Your task to perform on an android device: toggle pop-ups in chrome Image 0: 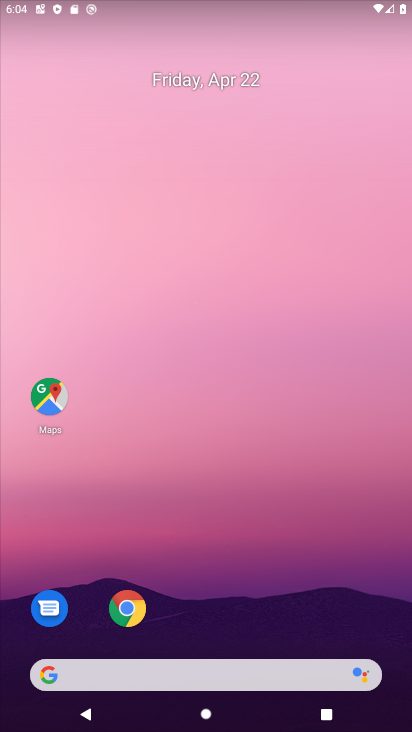
Step 0: drag from (292, 443) to (209, 145)
Your task to perform on an android device: toggle pop-ups in chrome Image 1: 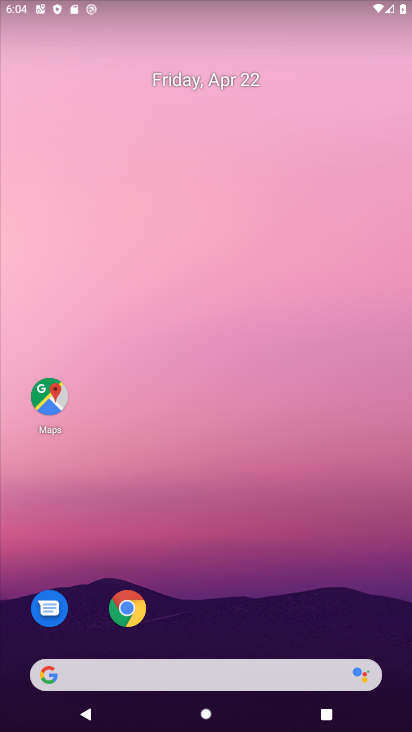
Step 1: click (139, 608)
Your task to perform on an android device: toggle pop-ups in chrome Image 2: 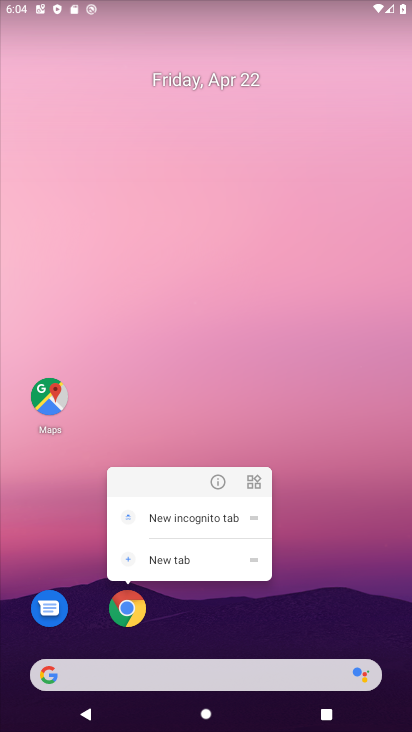
Step 2: click (127, 616)
Your task to perform on an android device: toggle pop-ups in chrome Image 3: 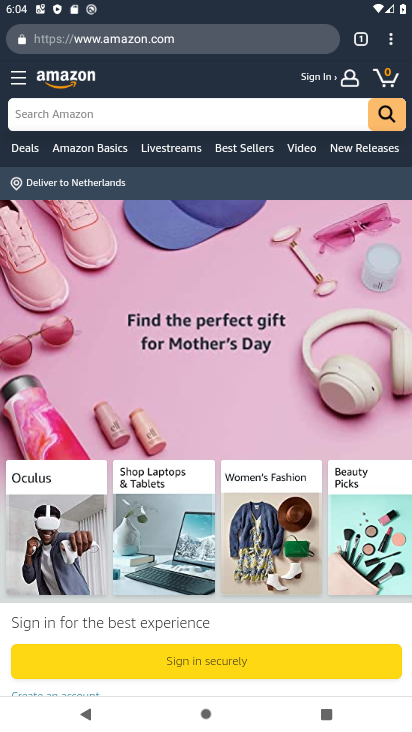
Step 3: click (389, 40)
Your task to perform on an android device: toggle pop-ups in chrome Image 4: 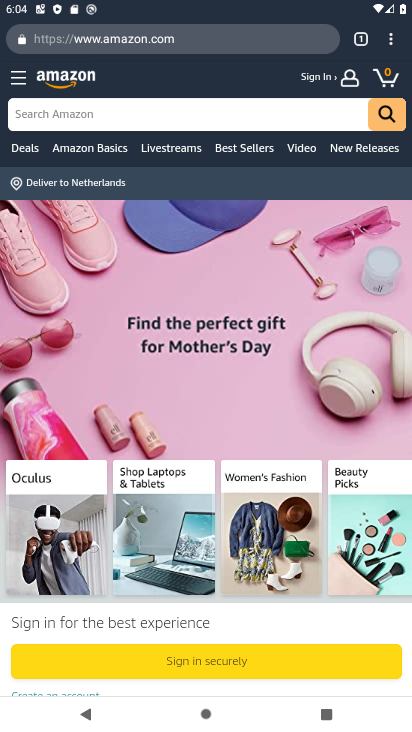
Step 4: click (394, 39)
Your task to perform on an android device: toggle pop-ups in chrome Image 5: 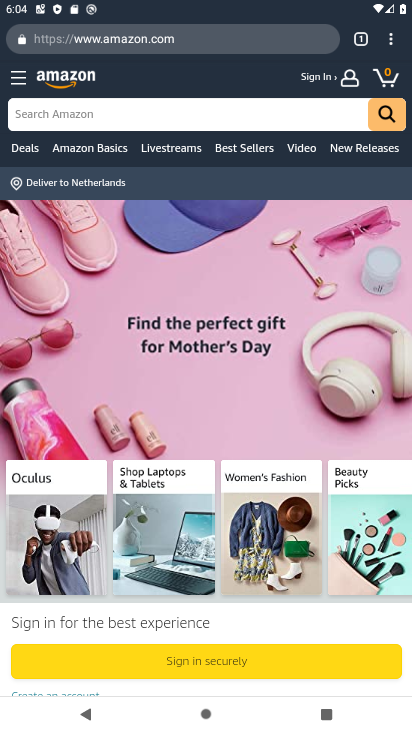
Step 5: click (394, 38)
Your task to perform on an android device: toggle pop-ups in chrome Image 6: 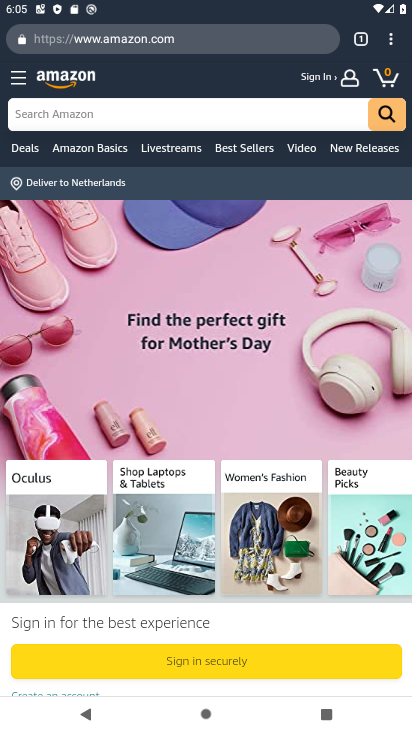
Step 6: click (393, 47)
Your task to perform on an android device: toggle pop-ups in chrome Image 7: 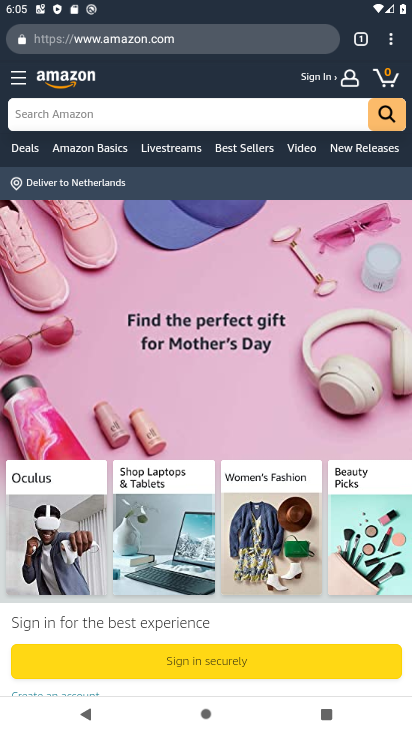
Step 7: click (394, 39)
Your task to perform on an android device: toggle pop-ups in chrome Image 8: 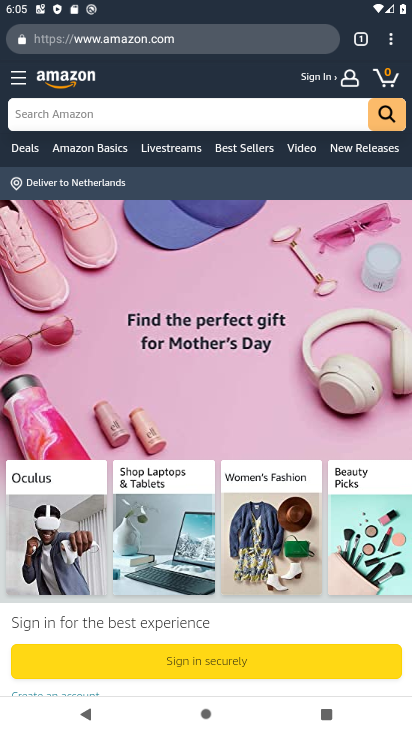
Step 8: click (392, 44)
Your task to perform on an android device: toggle pop-ups in chrome Image 9: 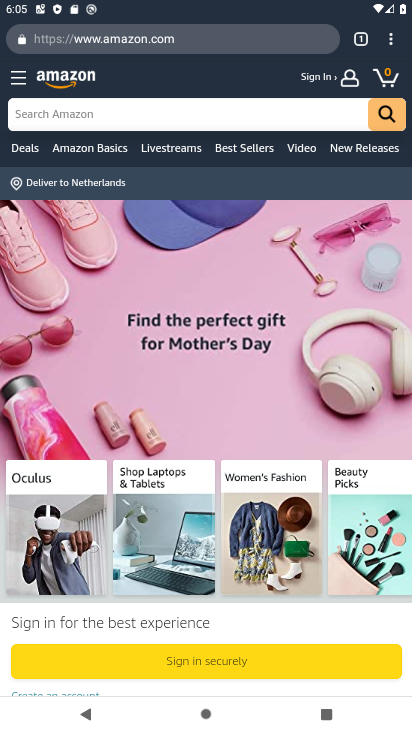
Step 9: click (390, 43)
Your task to perform on an android device: toggle pop-ups in chrome Image 10: 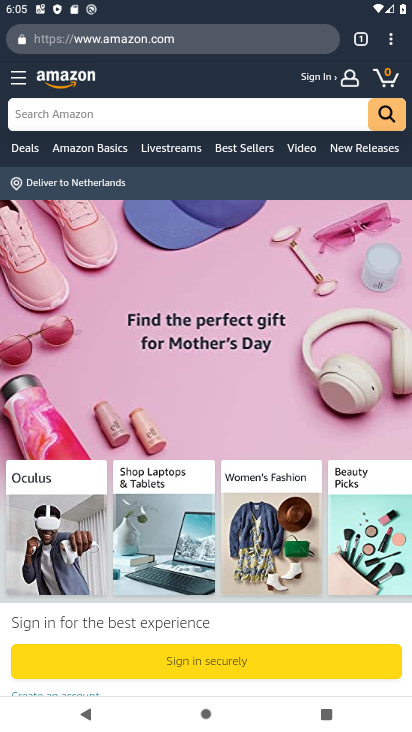
Step 10: click (391, 43)
Your task to perform on an android device: toggle pop-ups in chrome Image 11: 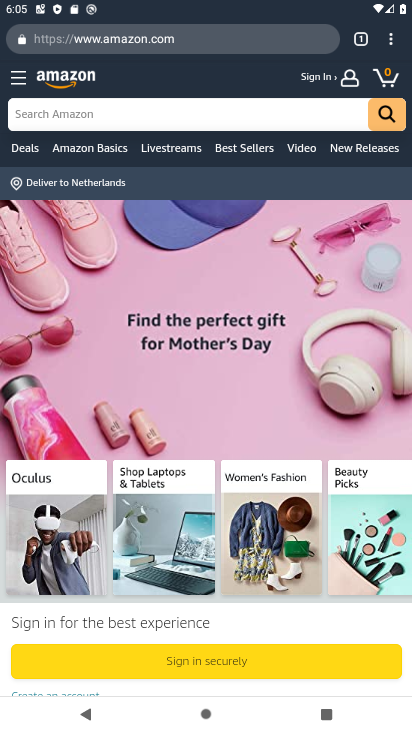
Step 11: click (392, 48)
Your task to perform on an android device: toggle pop-ups in chrome Image 12: 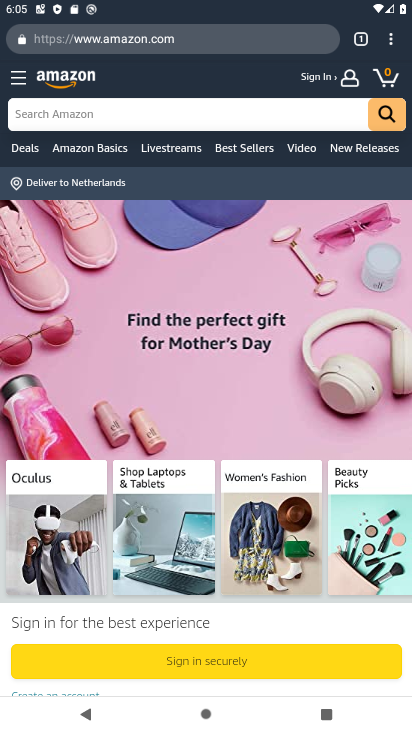
Step 12: click (391, 48)
Your task to perform on an android device: toggle pop-ups in chrome Image 13: 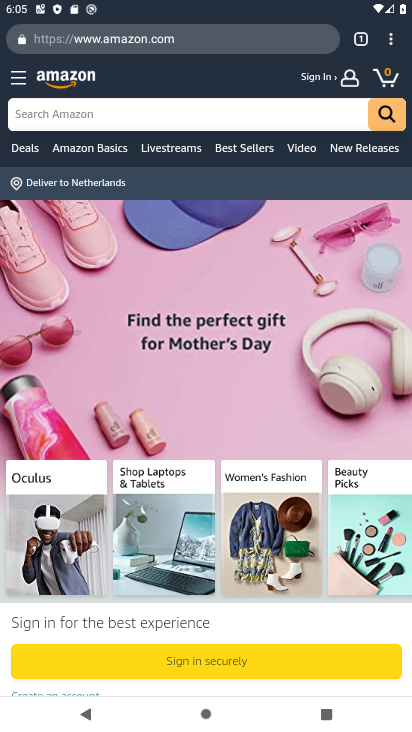
Step 13: click (394, 46)
Your task to perform on an android device: toggle pop-ups in chrome Image 14: 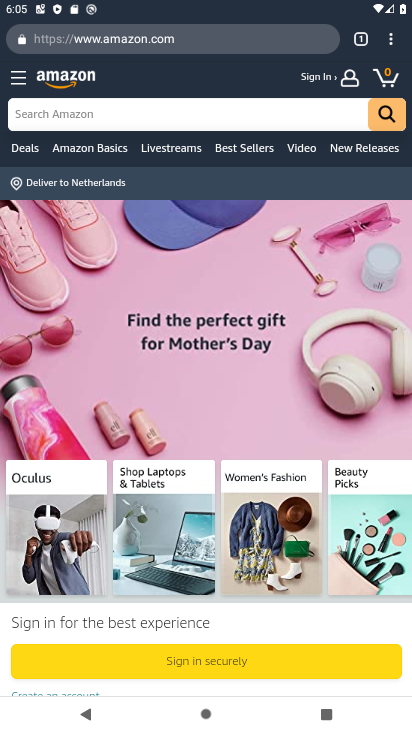
Step 14: click (391, 42)
Your task to perform on an android device: toggle pop-ups in chrome Image 15: 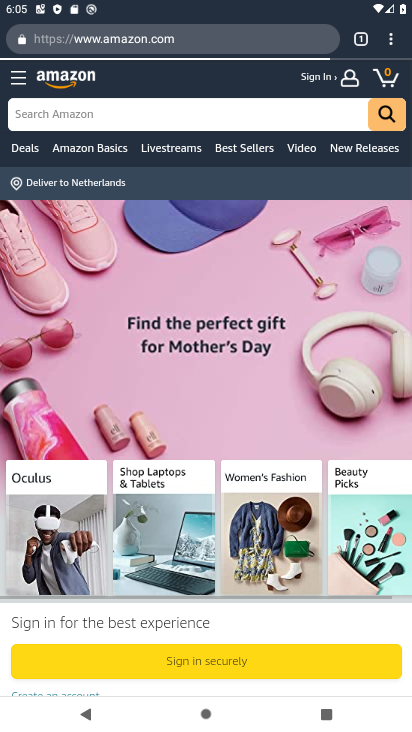
Step 15: click (393, 47)
Your task to perform on an android device: toggle pop-ups in chrome Image 16: 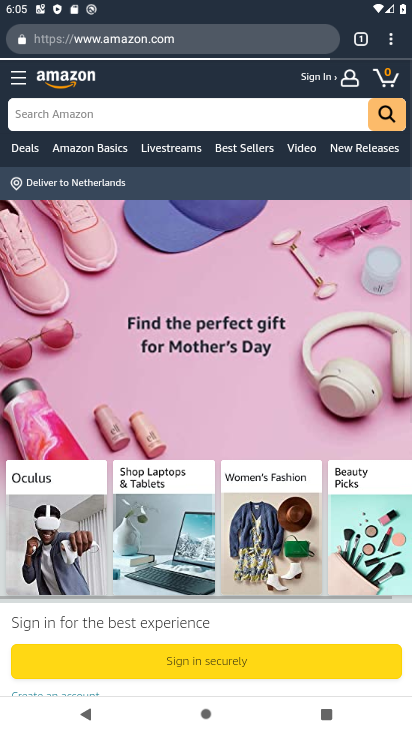
Step 16: click (388, 43)
Your task to perform on an android device: toggle pop-ups in chrome Image 17: 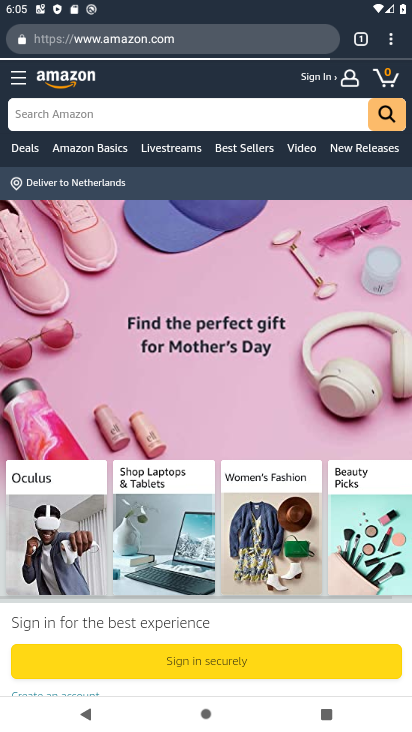
Step 17: click (392, 39)
Your task to perform on an android device: toggle pop-ups in chrome Image 18: 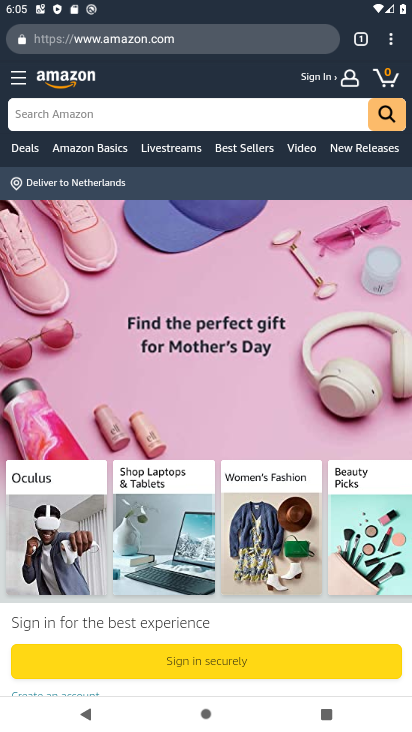
Step 18: click (393, 39)
Your task to perform on an android device: toggle pop-ups in chrome Image 19: 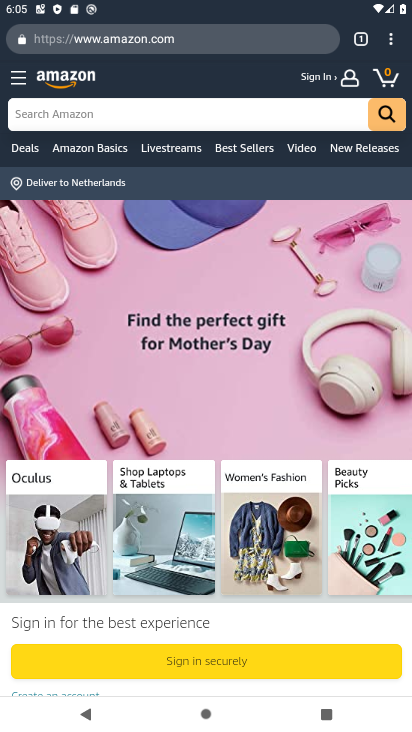
Step 19: click (391, 41)
Your task to perform on an android device: toggle pop-ups in chrome Image 20: 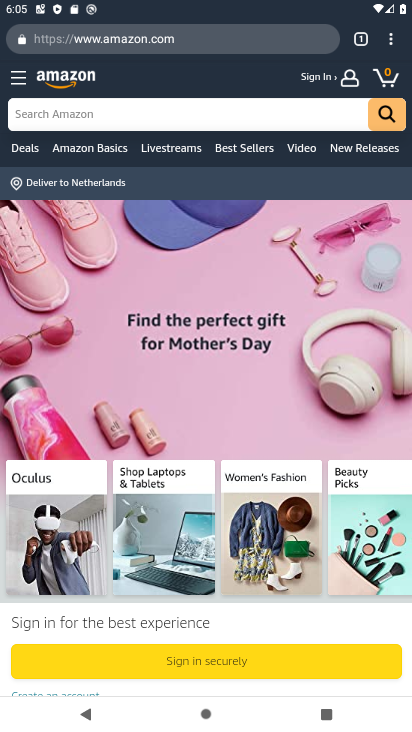
Step 20: click (397, 39)
Your task to perform on an android device: toggle pop-ups in chrome Image 21: 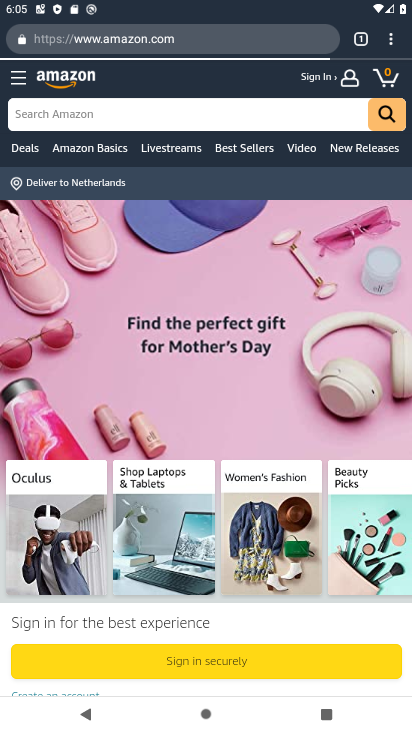
Step 21: click (395, 40)
Your task to perform on an android device: toggle pop-ups in chrome Image 22: 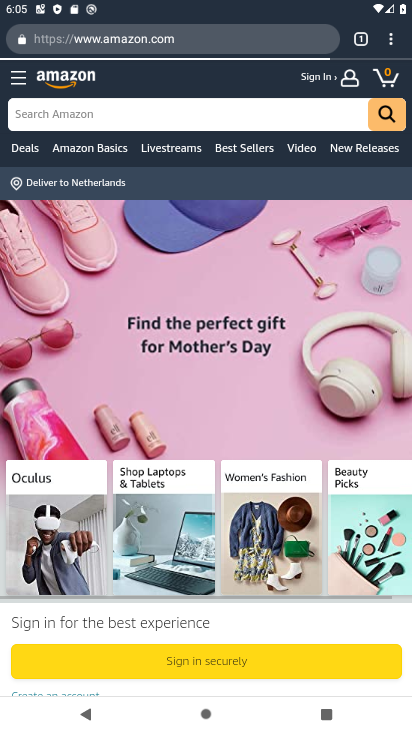
Step 22: click (385, 40)
Your task to perform on an android device: toggle pop-ups in chrome Image 23: 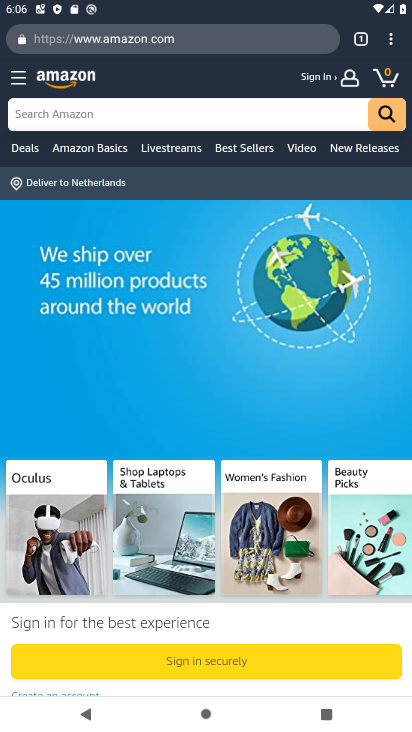
Step 23: click (390, 44)
Your task to perform on an android device: toggle pop-ups in chrome Image 24: 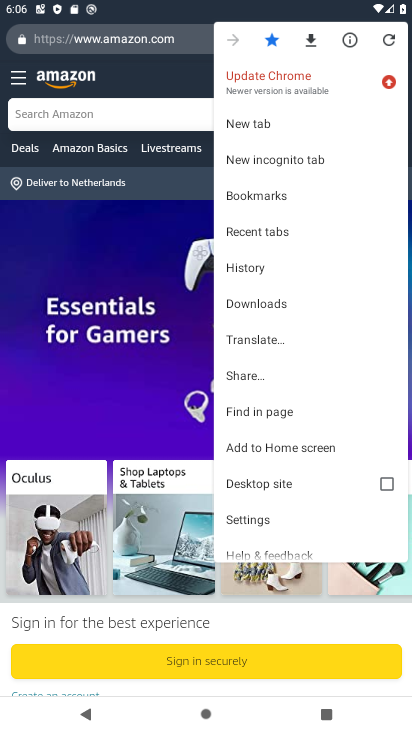
Step 24: click (244, 520)
Your task to perform on an android device: toggle pop-ups in chrome Image 25: 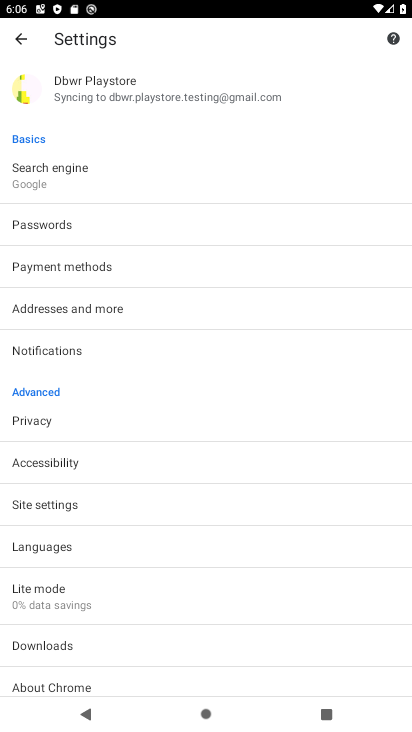
Step 25: click (50, 512)
Your task to perform on an android device: toggle pop-ups in chrome Image 26: 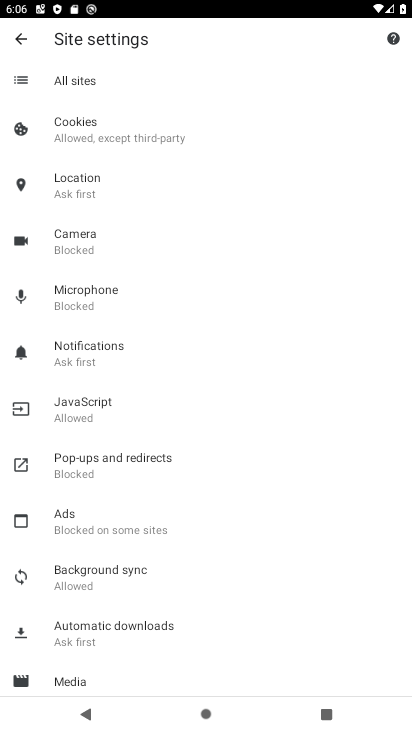
Step 26: drag from (156, 195) to (134, 489)
Your task to perform on an android device: toggle pop-ups in chrome Image 27: 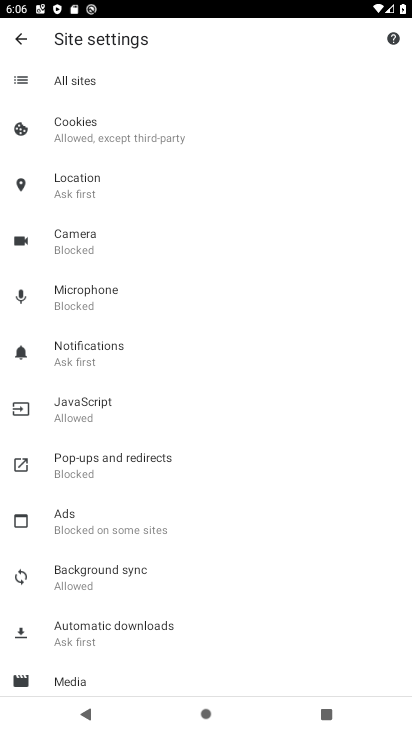
Step 27: click (101, 467)
Your task to perform on an android device: toggle pop-ups in chrome Image 28: 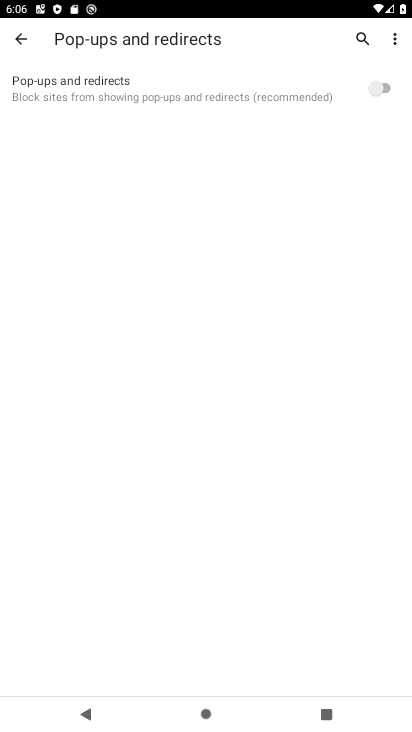
Step 28: click (391, 87)
Your task to perform on an android device: toggle pop-ups in chrome Image 29: 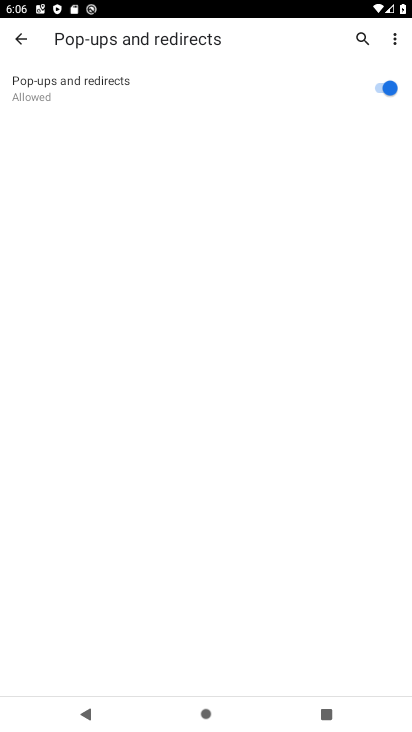
Step 29: task complete